Your task to perform on an android device: open sync settings in chrome Image 0: 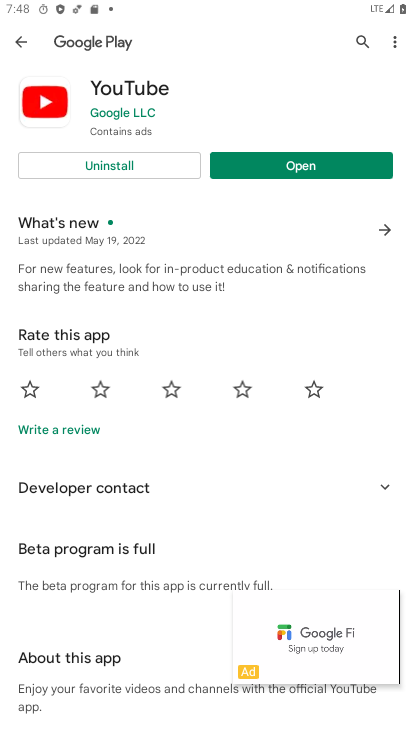
Step 0: press home button
Your task to perform on an android device: open sync settings in chrome Image 1: 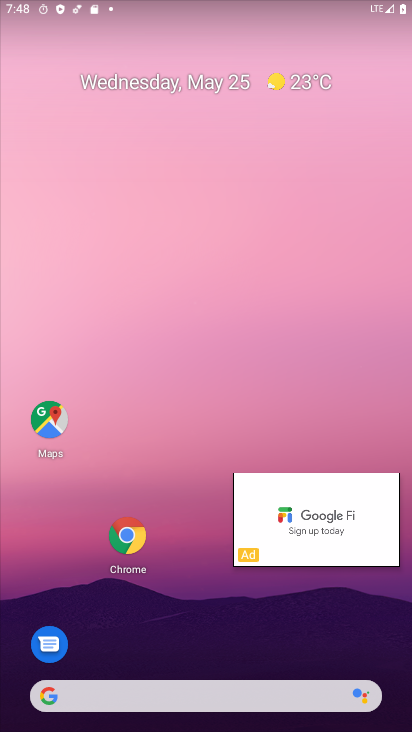
Step 1: drag from (326, 519) to (204, 731)
Your task to perform on an android device: open sync settings in chrome Image 2: 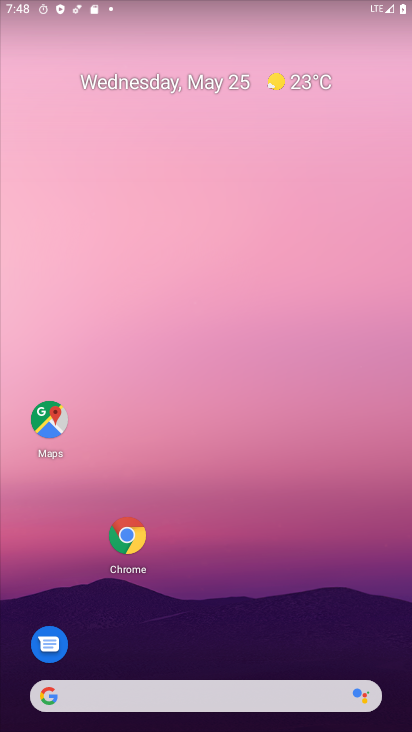
Step 2: click (127, 532)
Your task to perform on an android device: open sync settings in chrome Image 3: 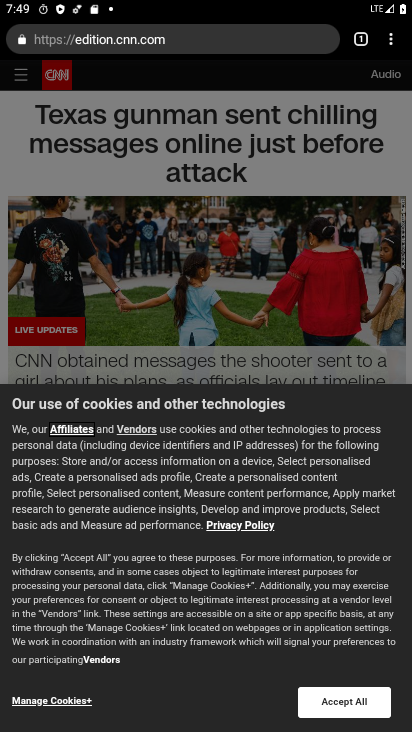
Step 3: drag from (389, 38) to (254, 430)
Your task to perform on an android device: open sync settings in chrome Image 4: 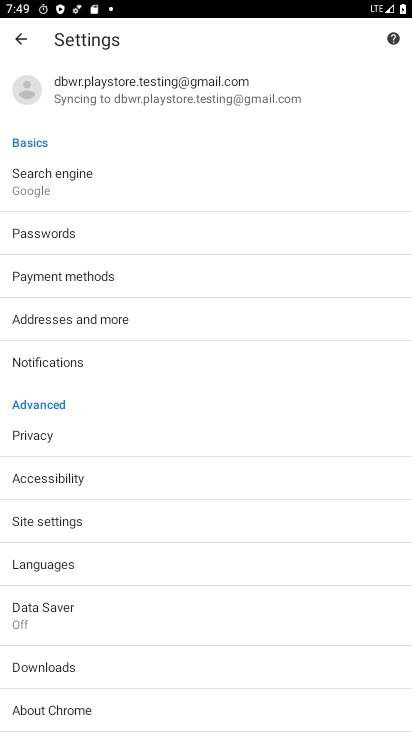
Step 4: click (99, 95)
Your task to perform on an android device: open sync settings in chrome Image 5: 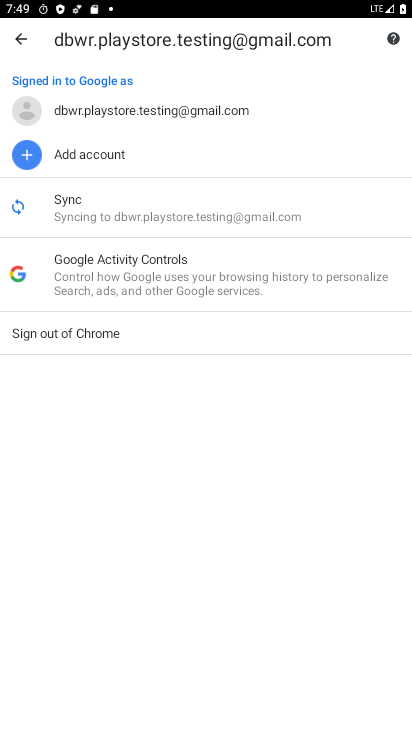
Step 5: click (110, 214)
Your task to perform on an android device: open sync settings in chrome Image 6: 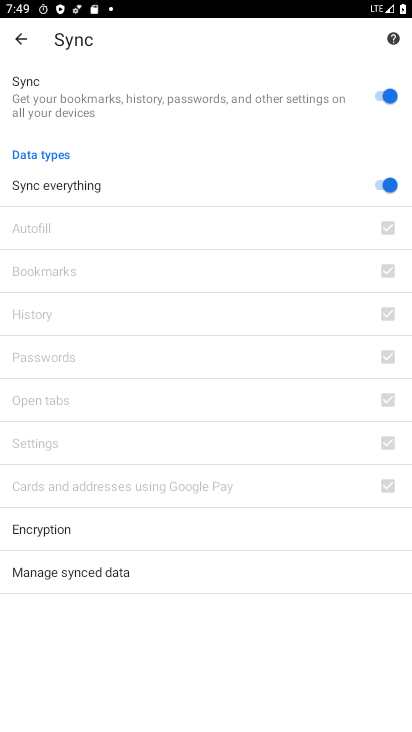
Step 6: task complete